Your task to perform on an android device: install app "PUBG MOBILE" Image 0: 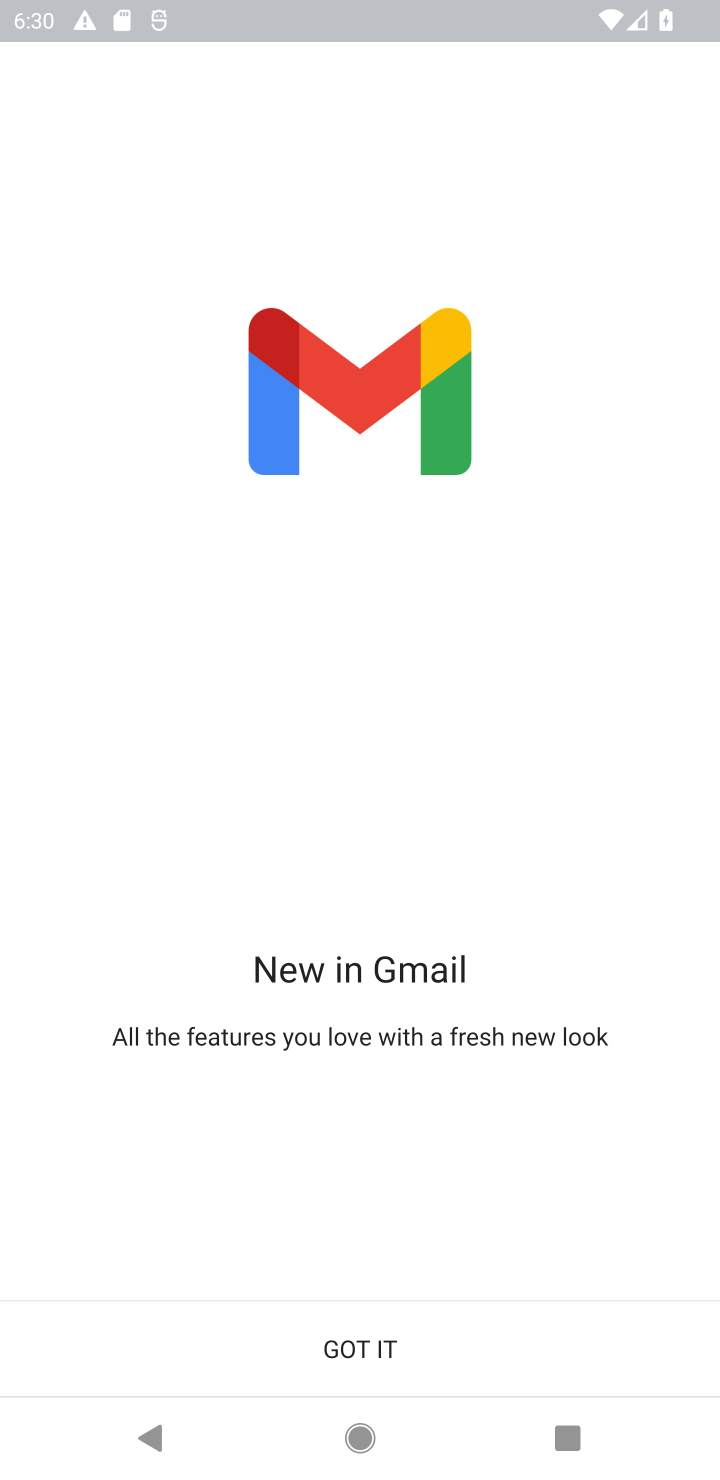
Step 0: press home button
Your task to perform on an android device: install app "PUBG MOBILE" Image 1: 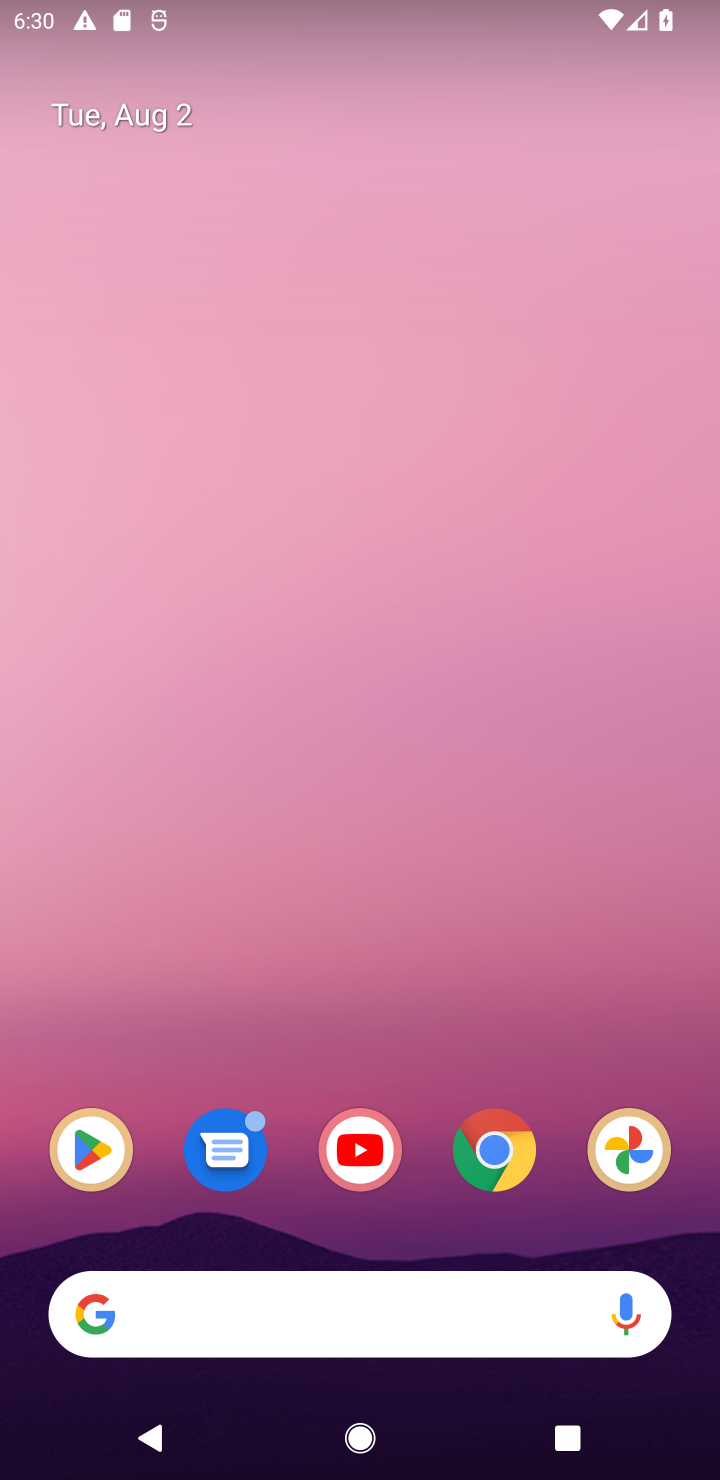
Step 1: drag from (384, 1254) to (222, 69)
Your task to perform on an android device: install app "PUBG MOBILE" Image 2: 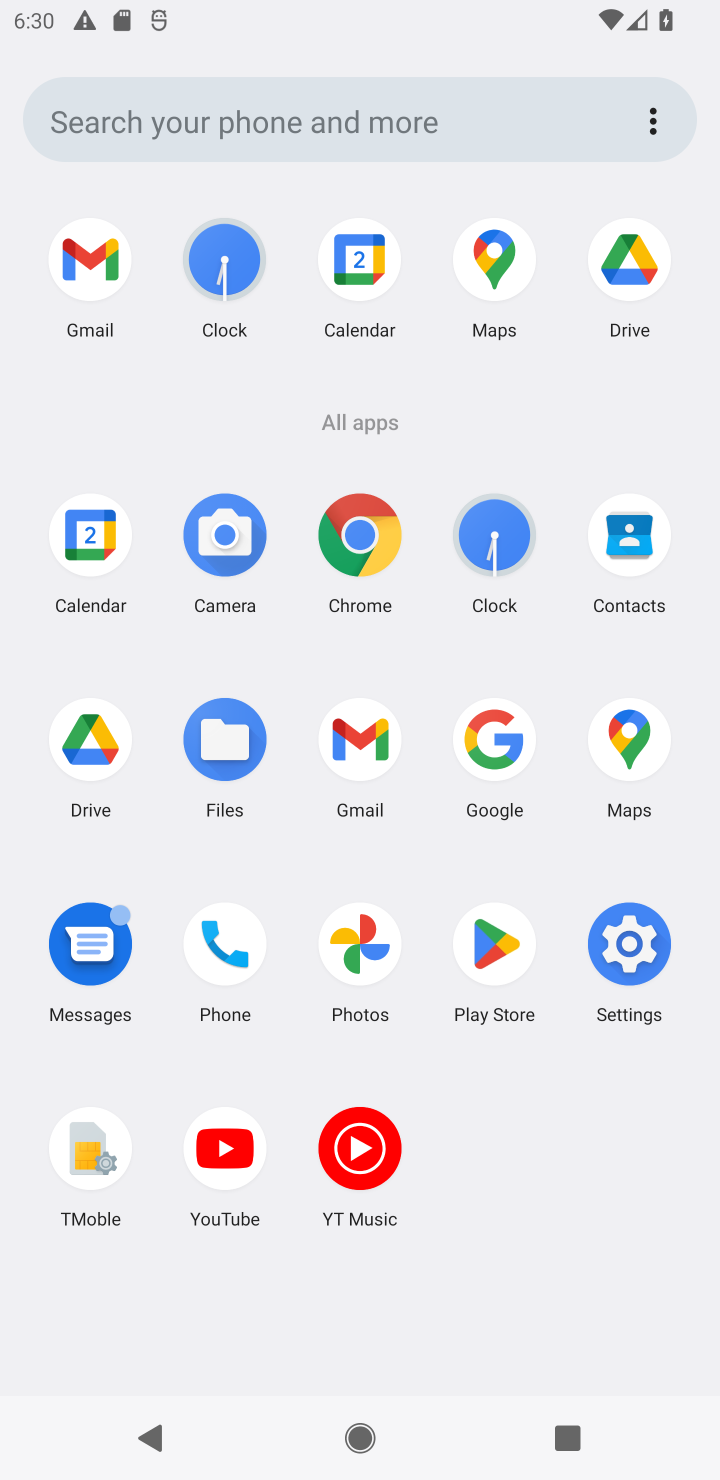
Step 2: click (494, 952)
Your task to perform on an android device: install app "PUBG MOBILE" Image 3: 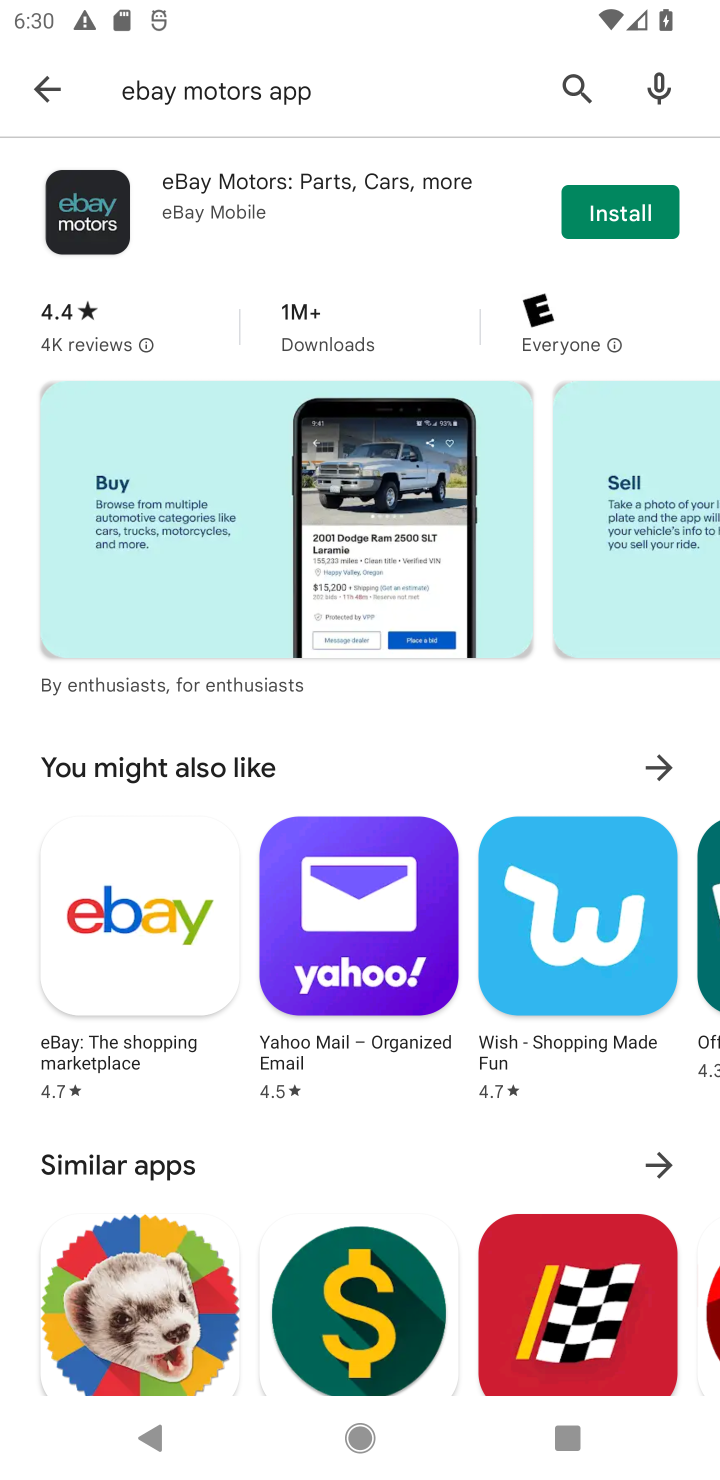
Step 3: click (18, 105)
Your task to perform on an android device: install app "PUBG MOBILE" Image 4: 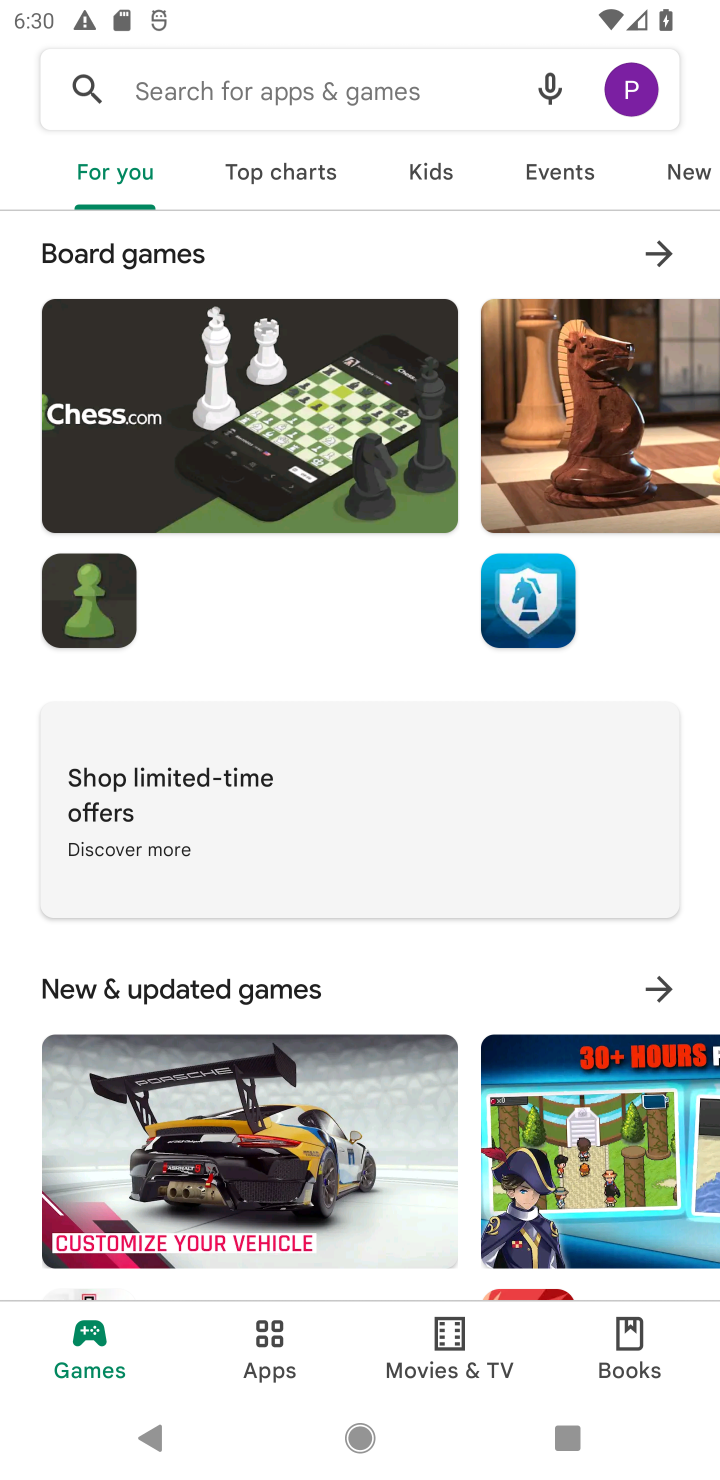
Step 4: click (147, 91)
Your task to perform on an android device: install app "PUBG MOBILE" Image 5: 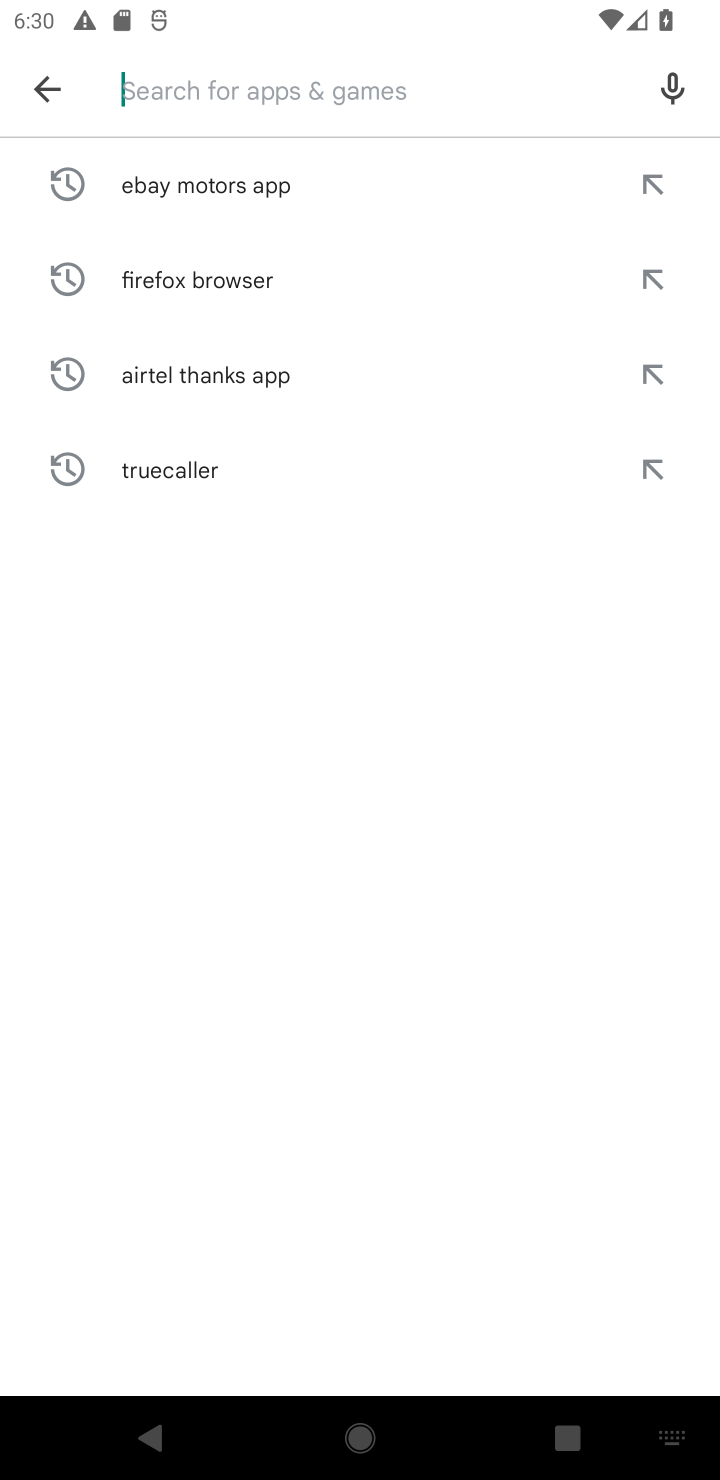
Step 5: type "PUBG MOBILE"
Your task to perform on an android device: install app "PUBG MOBILE" Image 6: 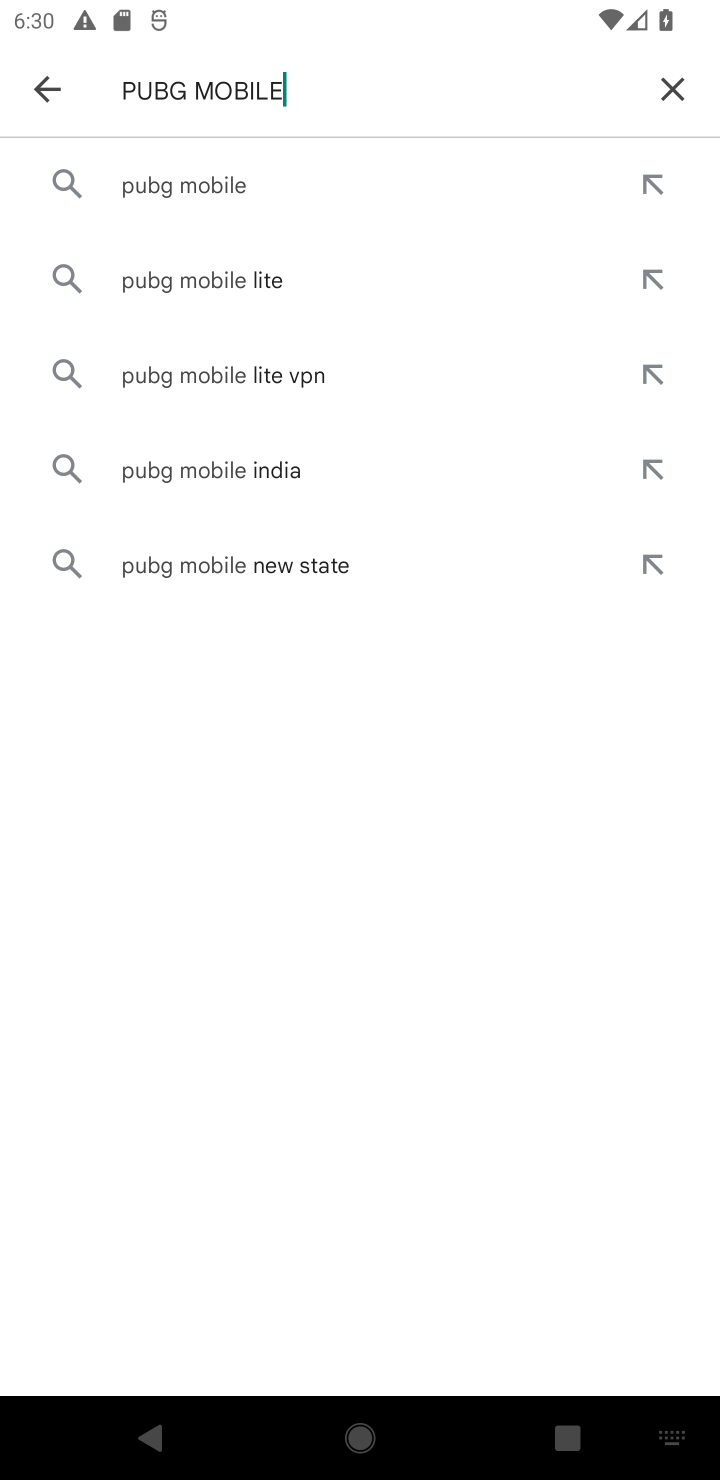
Step 6: click (123, 191)
Your task to perform on an android device: install app "PUBG MOBILE" Image 7: 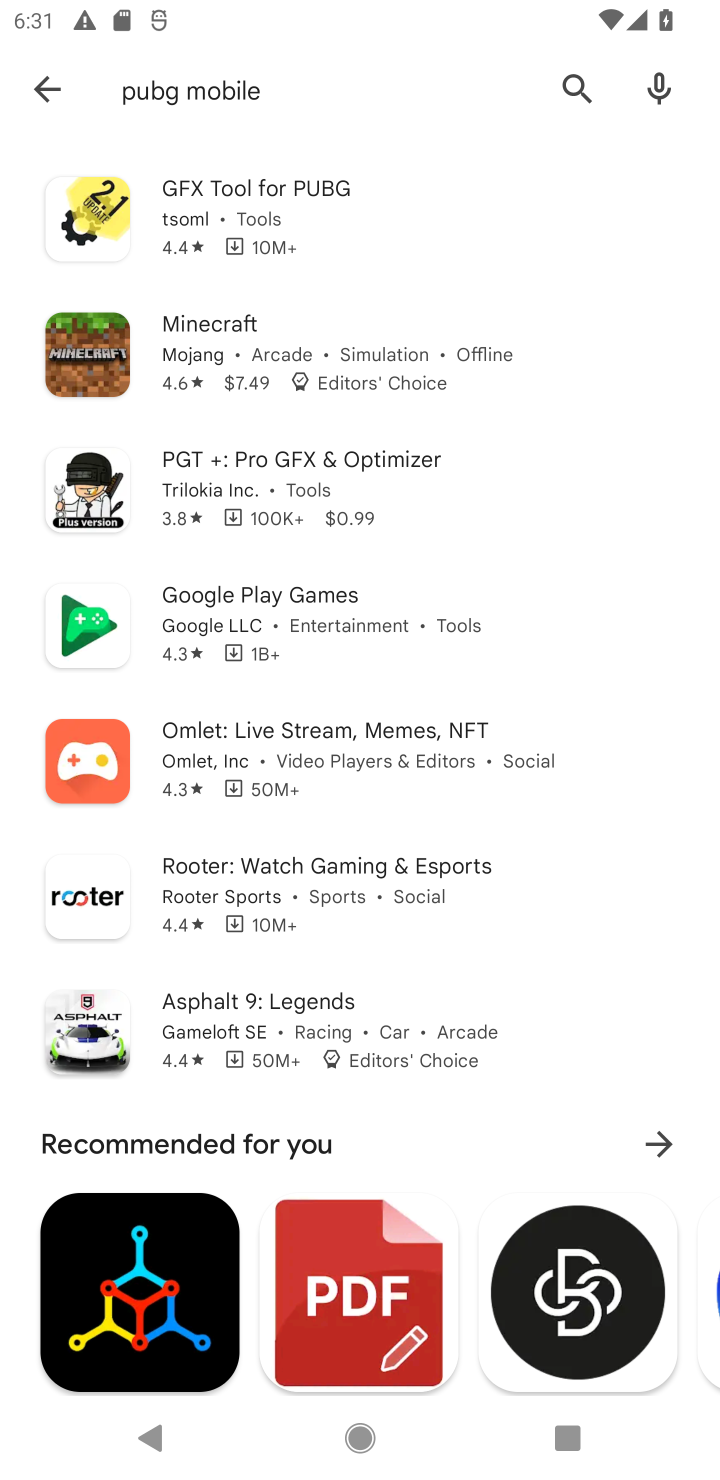
Step 7: task complete